Your task to perform on an android device: Search for logitech g933 on newegg, select the first entry, add it to the cart, then select checkout. Image 0: 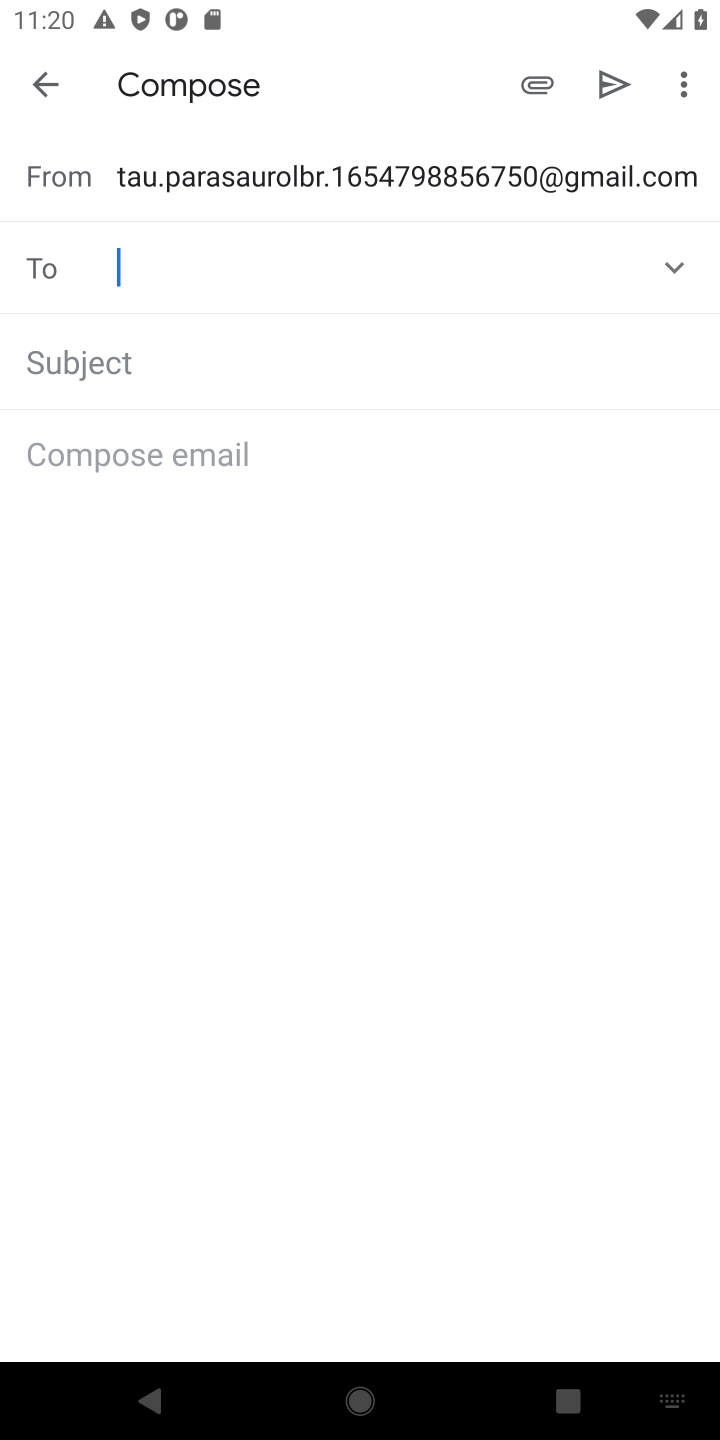
Step 0: press home button
Your task to perform on an android device: Search for logitech g933 on newegg, select the first entry, add it to the cart, then select checkout. Image 1: 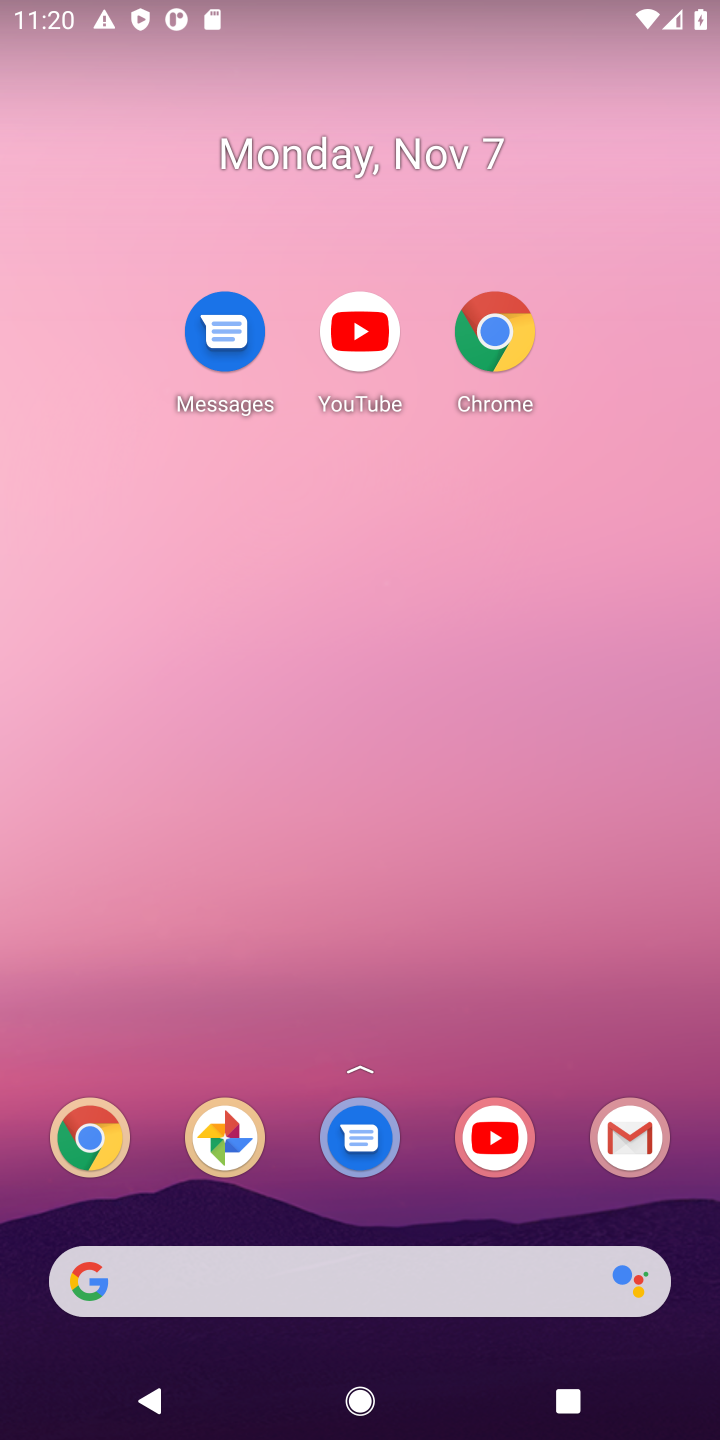
Step 1: drag from (438, 1225) to (401, 257)
Your task to perform on an android device: Search for logitech g933 on newegg, select the first entry, add it to the cart, then select checkout. Image 2: 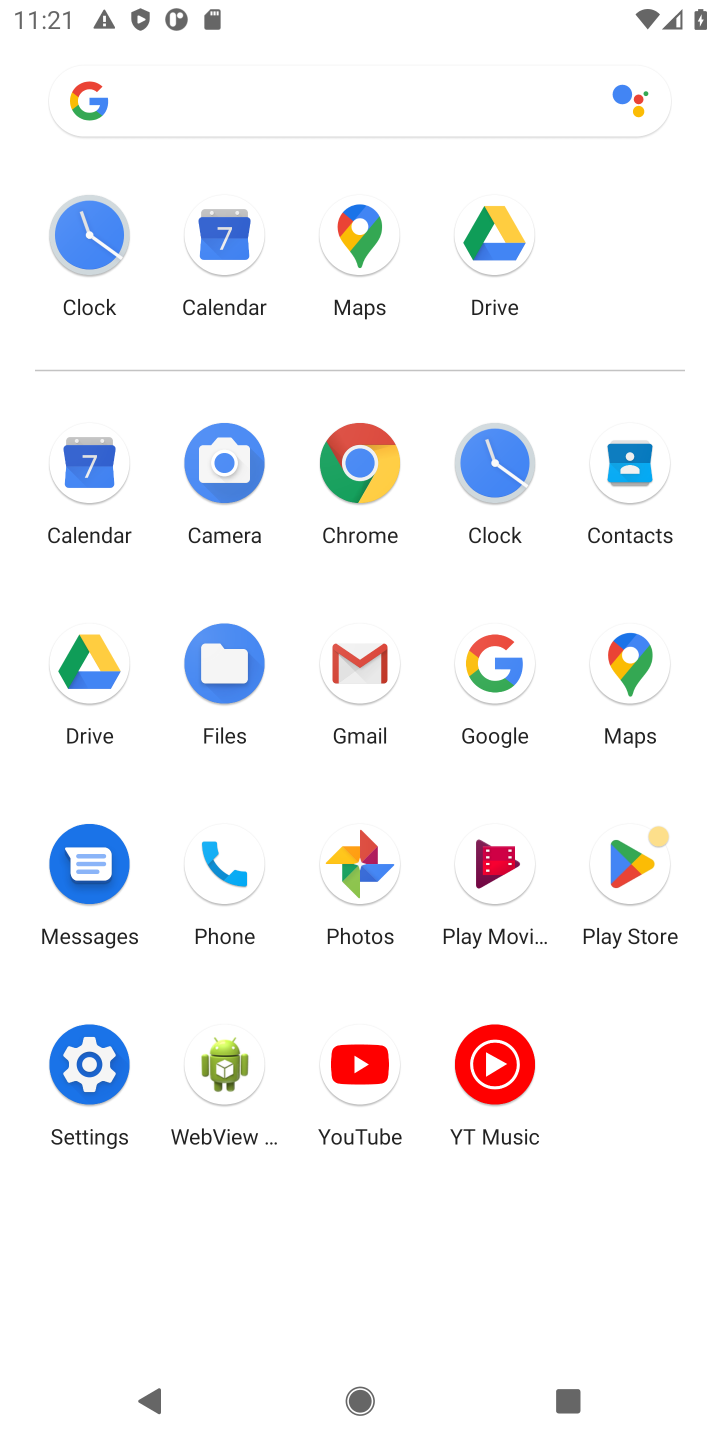
Step 2: click (355, 464)
Your task to perform on an android device: Search for logitech g933 on newegg, select the first entry, add it to the cart, then select checkout. Image 3: 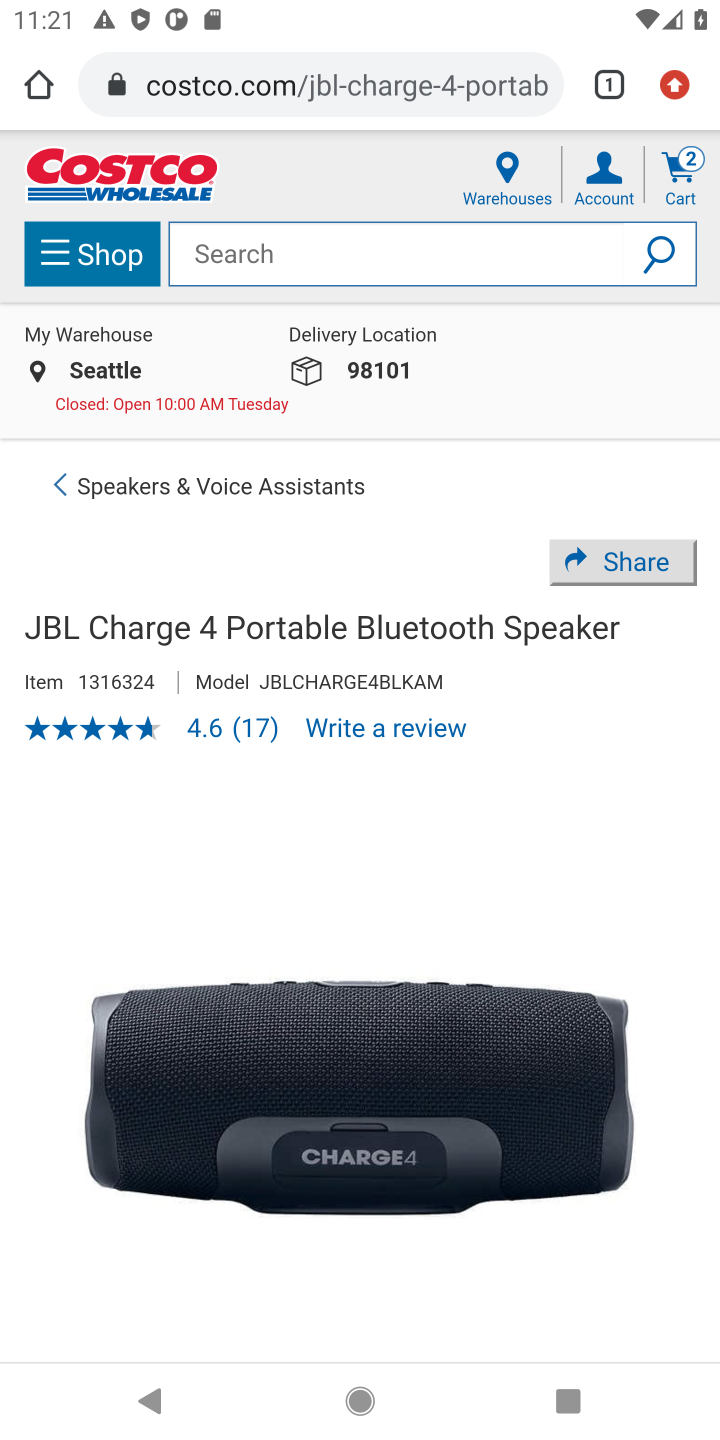
Step 3: click (459, 93)
Your task to perform on an android device: Search for logitech g933 on newegg, select the first entry, add it to the cart, then select checkout. Image 4: 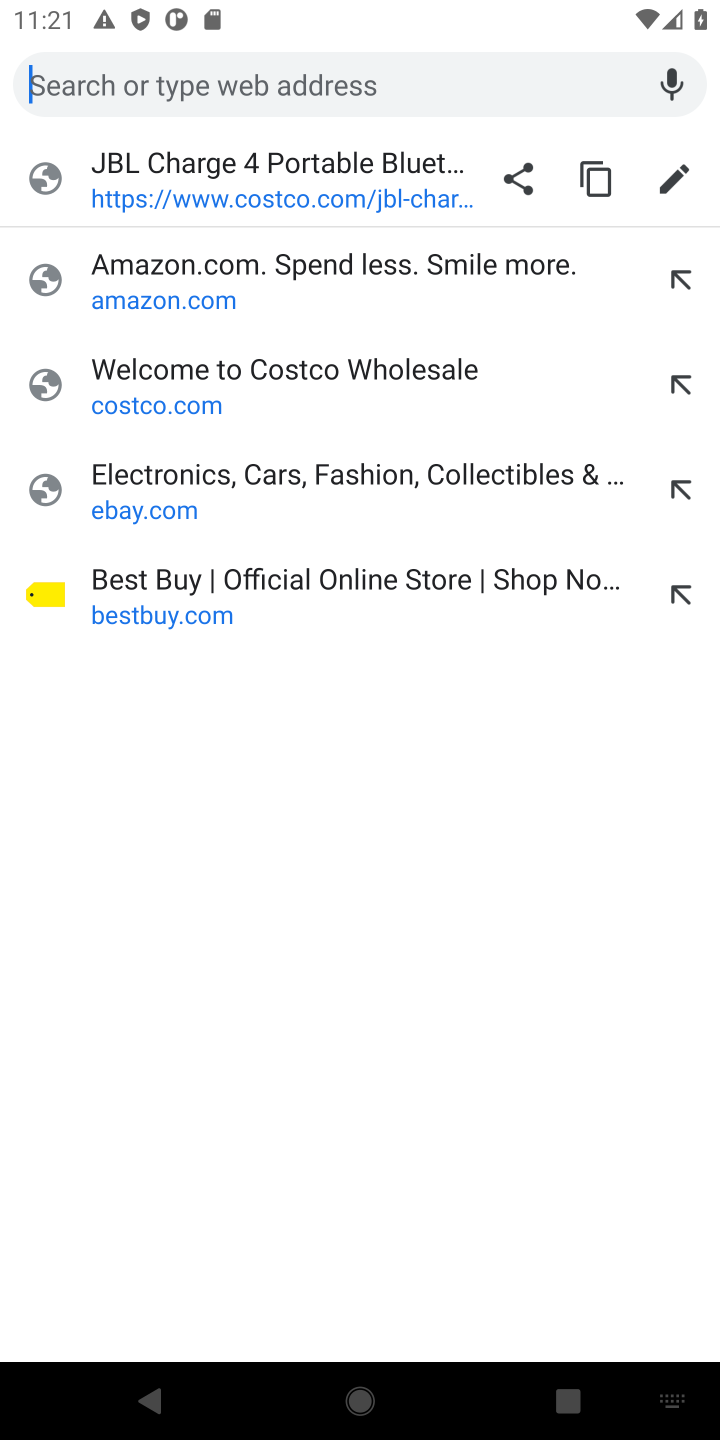
Step 4: type "newegg.com"
Your task to perform on an android device: Search for logitech g933 on newegg, select the first entry, add it to the cart, then select checkout. Image 5: 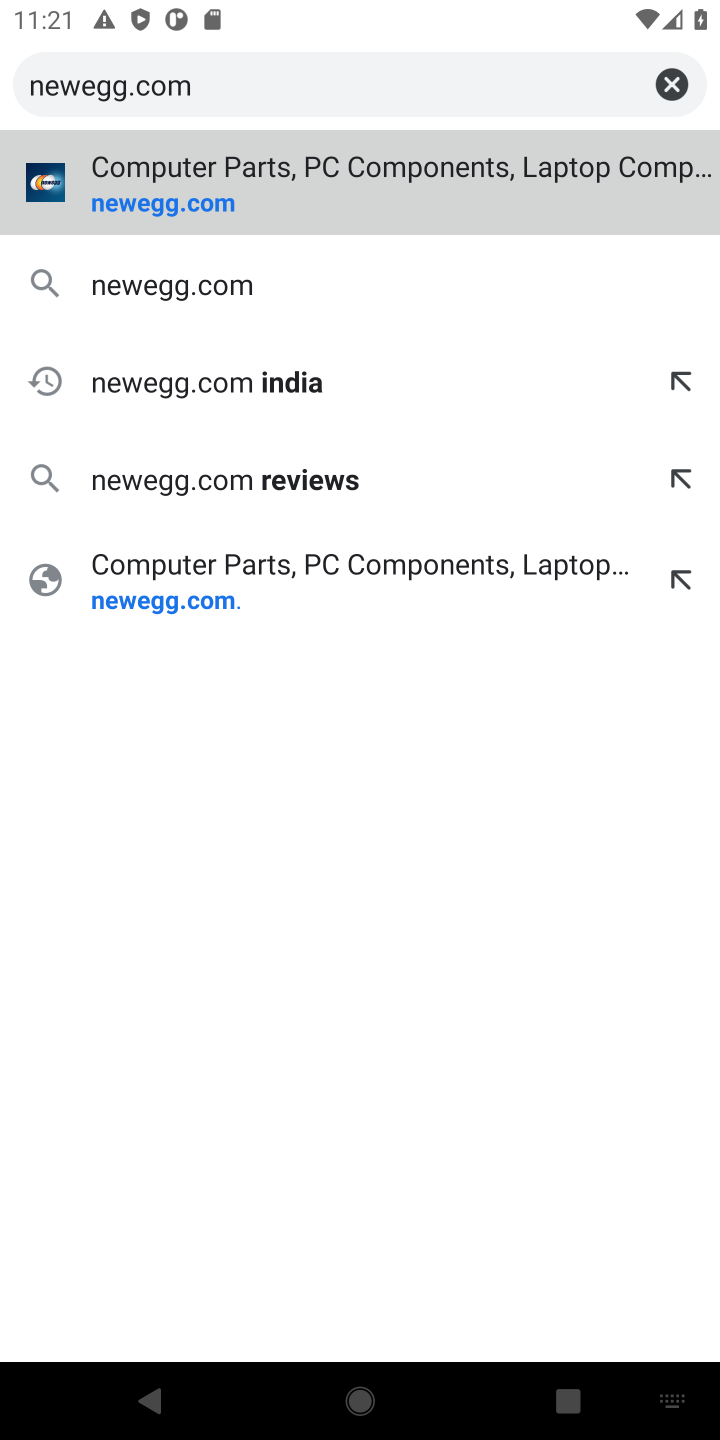
Step 5: press enter
Your task to perform on an android device: Search for logitech g933 on newegg, select the first entry, add it to the cart, then select checkout. Image 6: 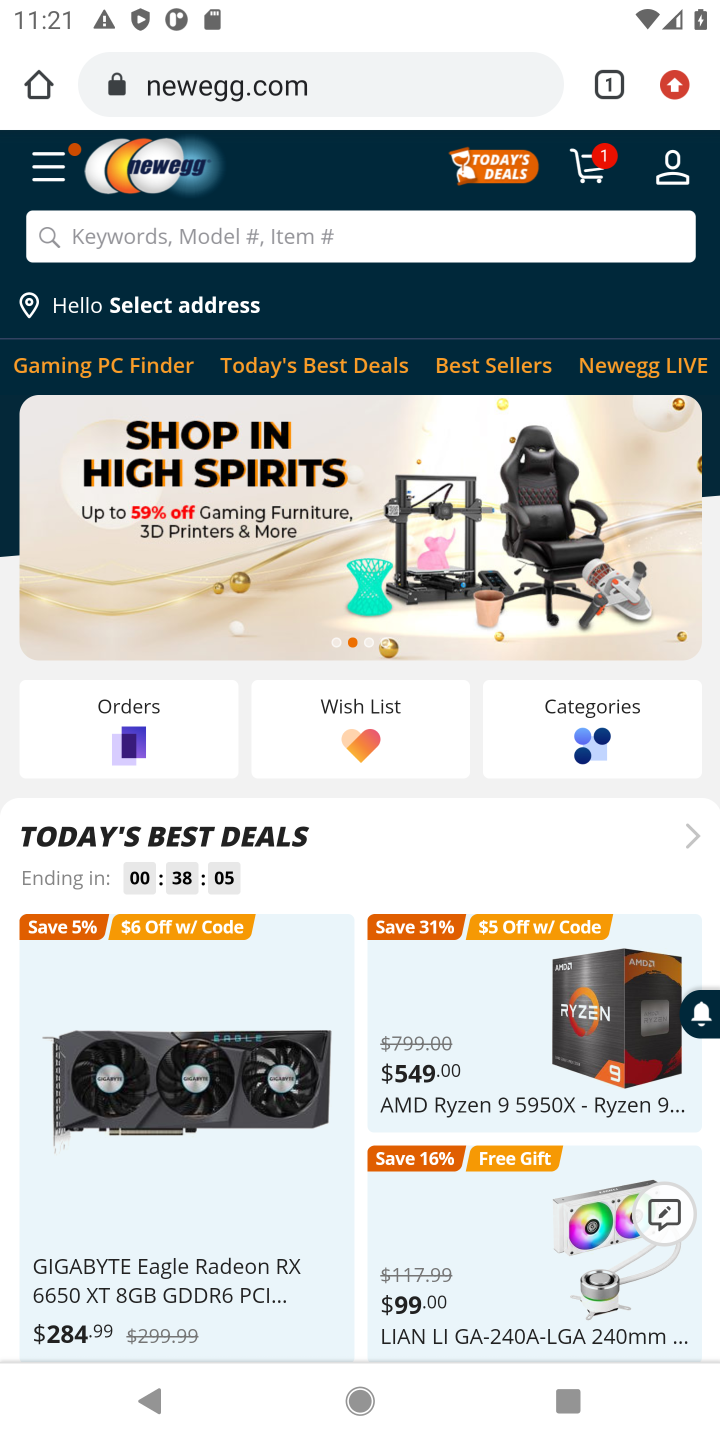
Step 6: click (445, 230)
Your task to perform on an android device: Search for logitech g933 on newegg, select the first entry, add it to the cart, then select checkout. Image 7: 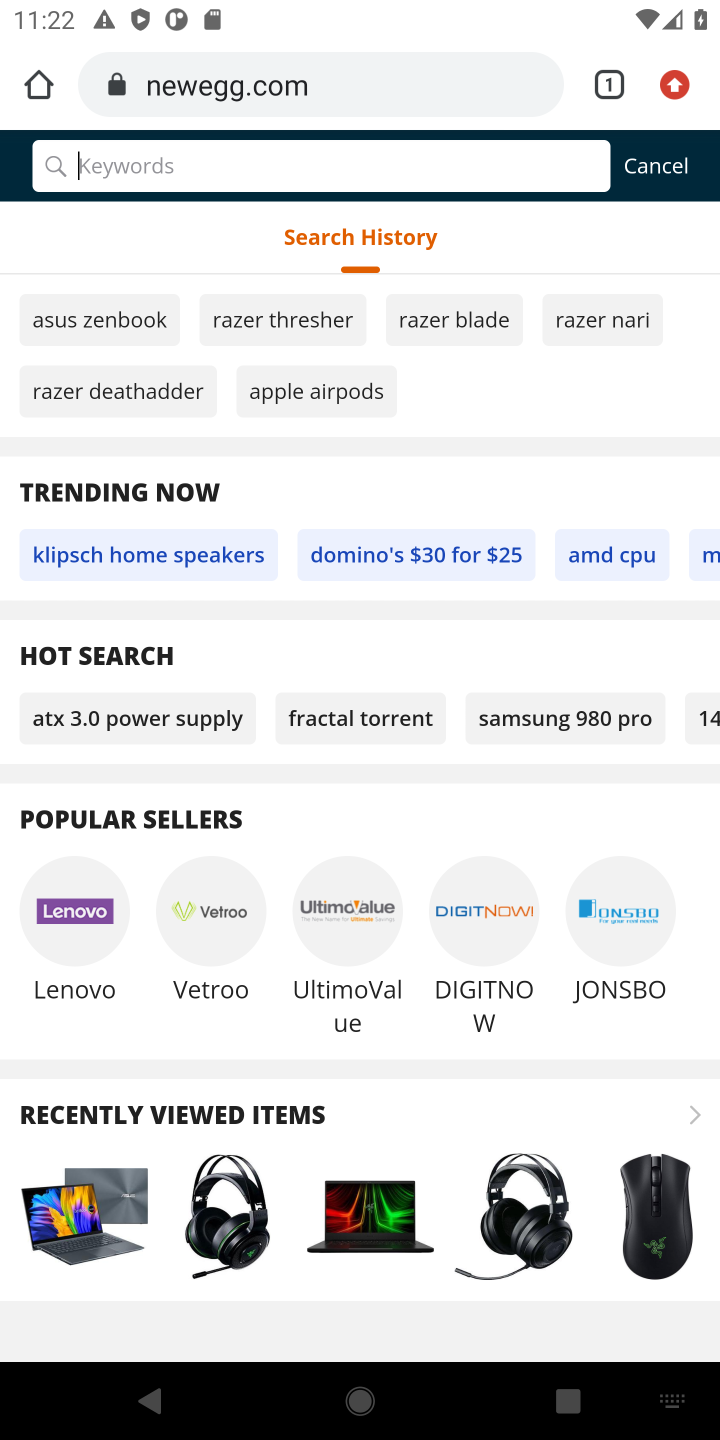
Step 7: type "logitech g933"
Your task to perform on an android device: Search for logitech g933 on newegg, select the first entry, add it to the cart, then select checkout. Image 8: 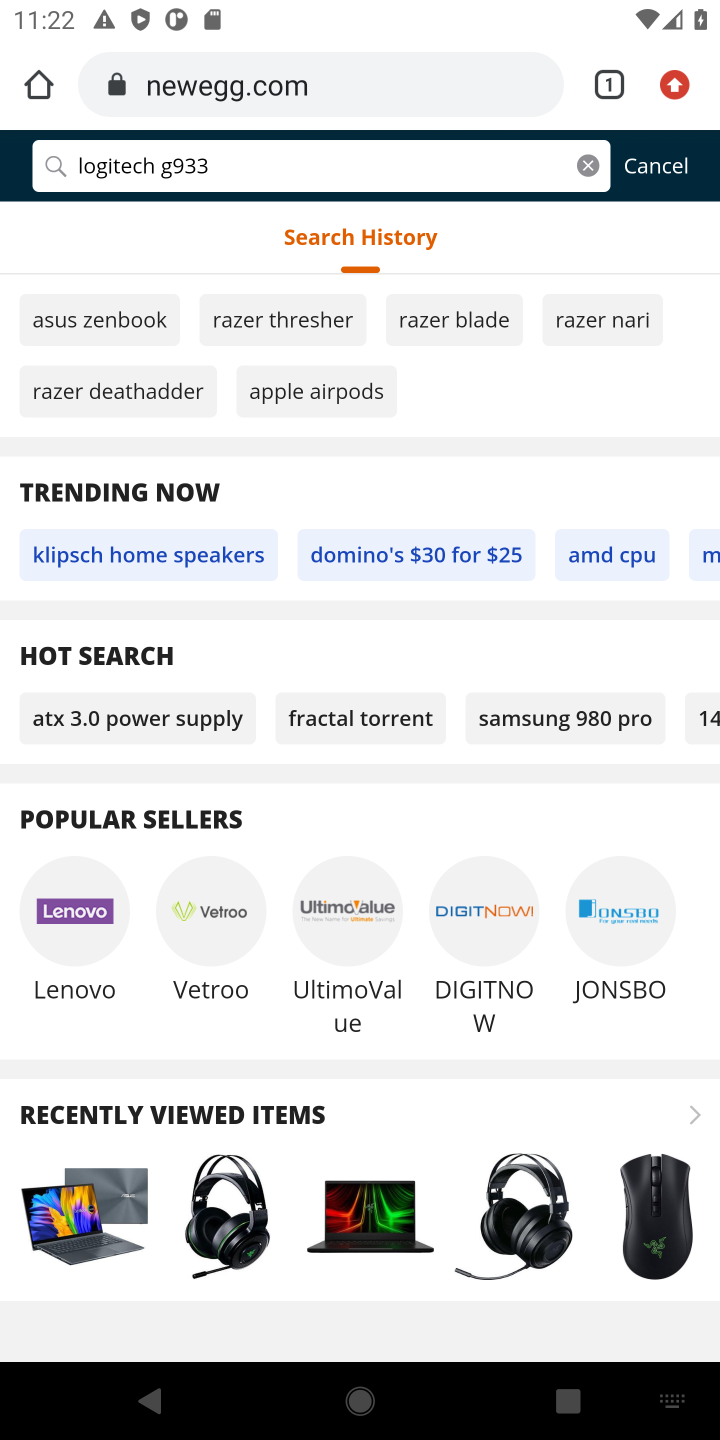
Step 8: press enter
Your task to perform on an android device: Search for logitech g933 on newegg, select the first entry, add it to the cart, then select checkout. Image 9: 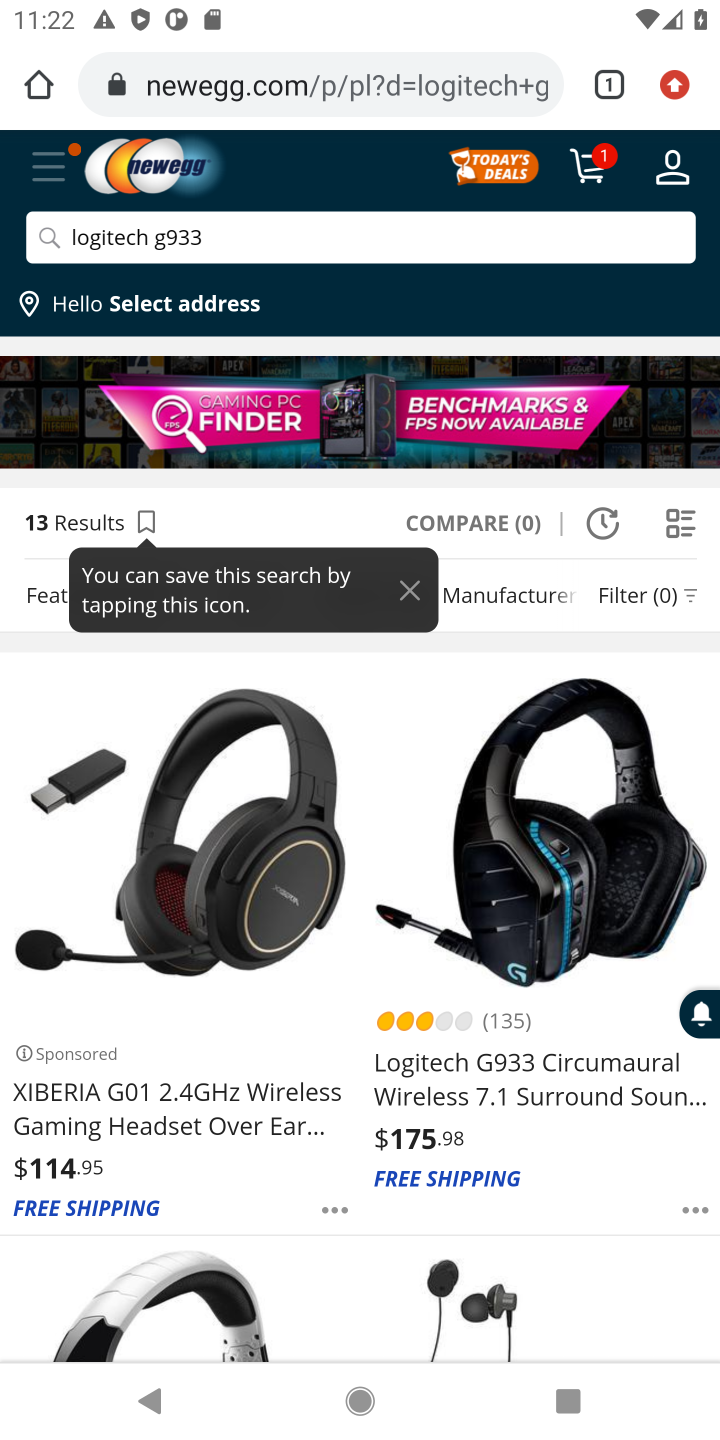
Step 9: press enter
Your task to perform on an android device: Search for logitech g933 on newegg, select the first entry, add it to the cart, then select checkout. Image 10: 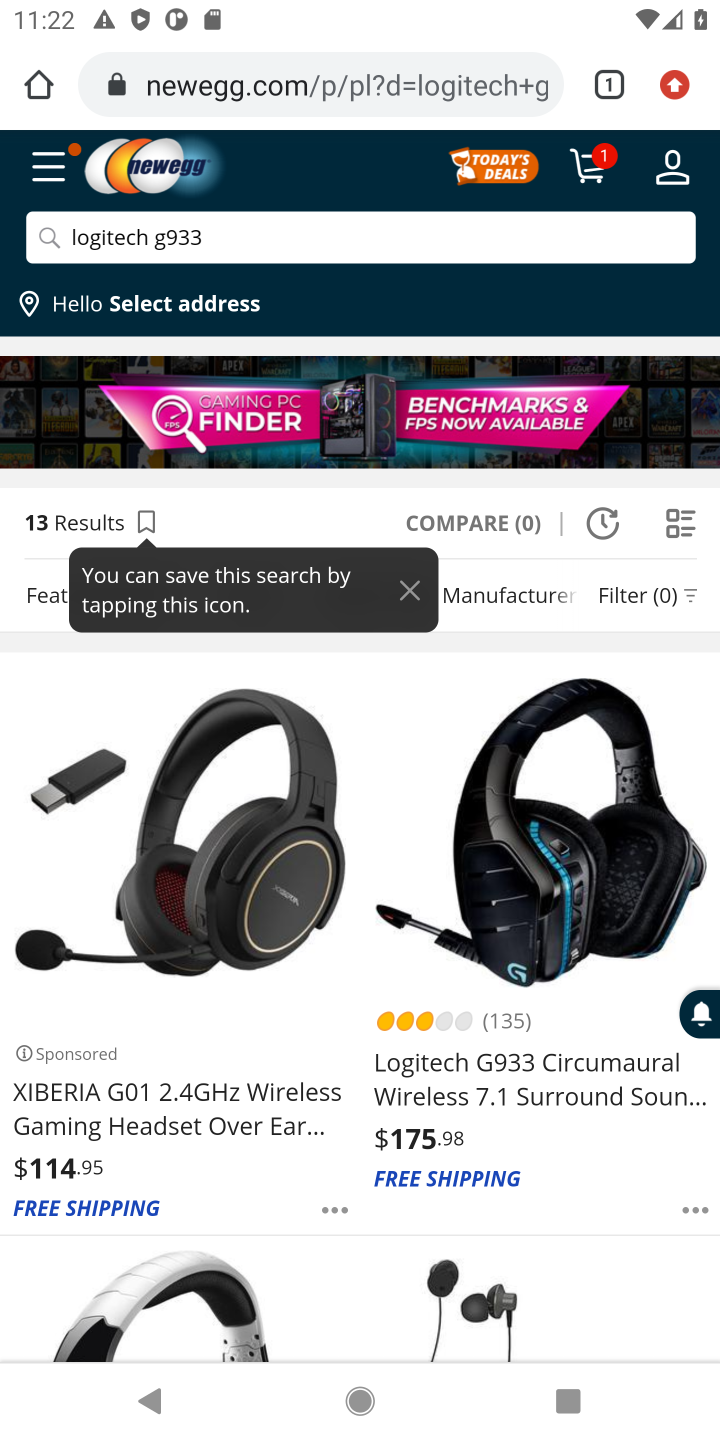
Step 10: click (609, 908)
Your task to perform on an android device: Search for logitech g933 on newegg, select the first entry, add it to the cart, then select checkout. Image 11: 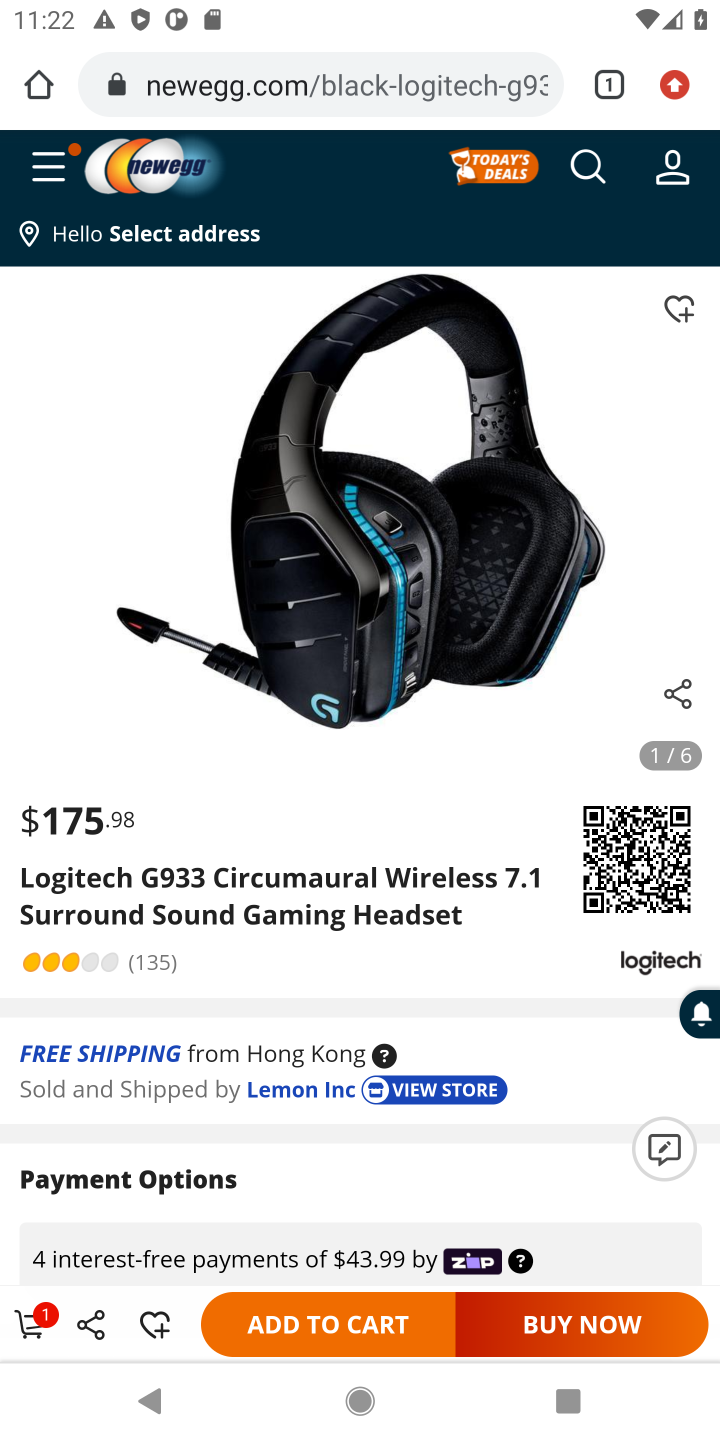
Step 11: click (304, 1308)
Your task to perform on an android device: Search for logitech g933 on newegg, select the first entry, add it to the cart, then select checkout. Image 12: 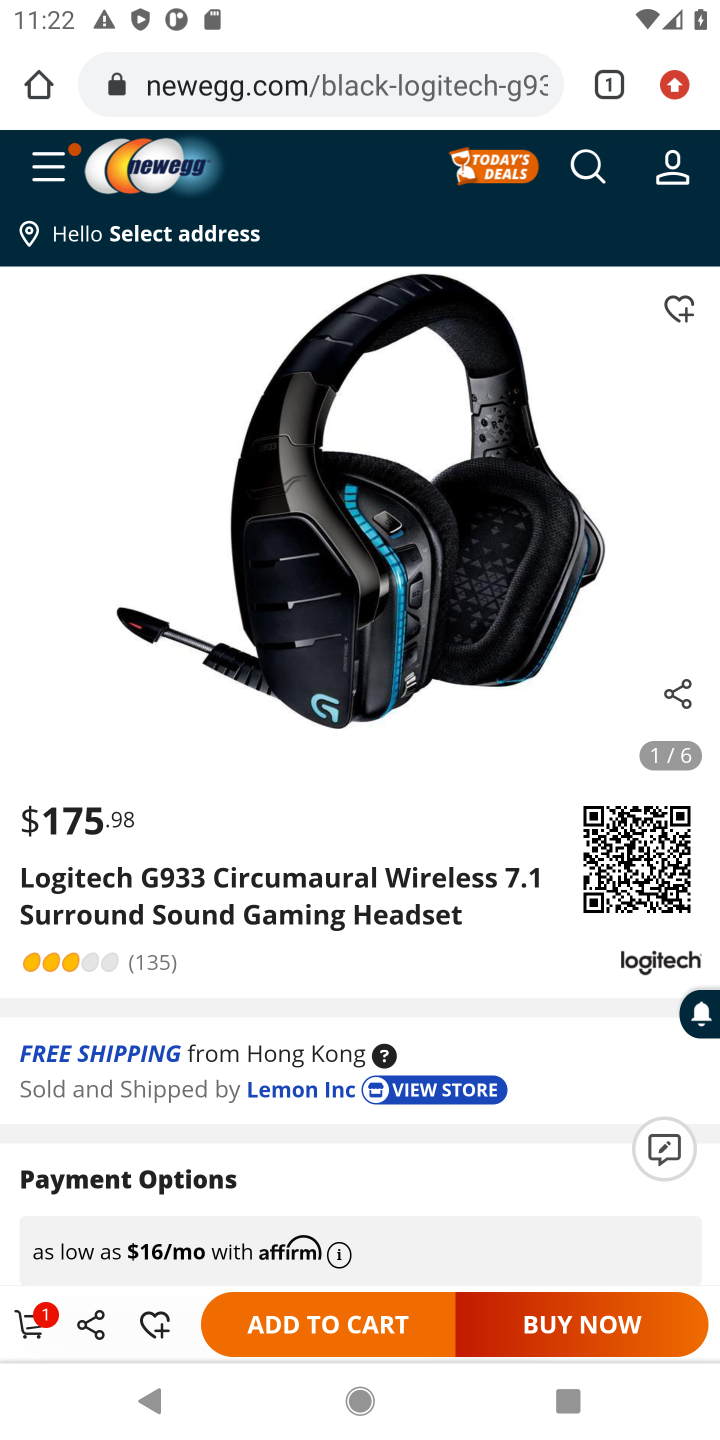
Step 12: click (298, 1346)
Your task to perform on an android device: Search for logitech g933 on newegg, select the first entry, add it to the cart, then select checkout. Image 13: 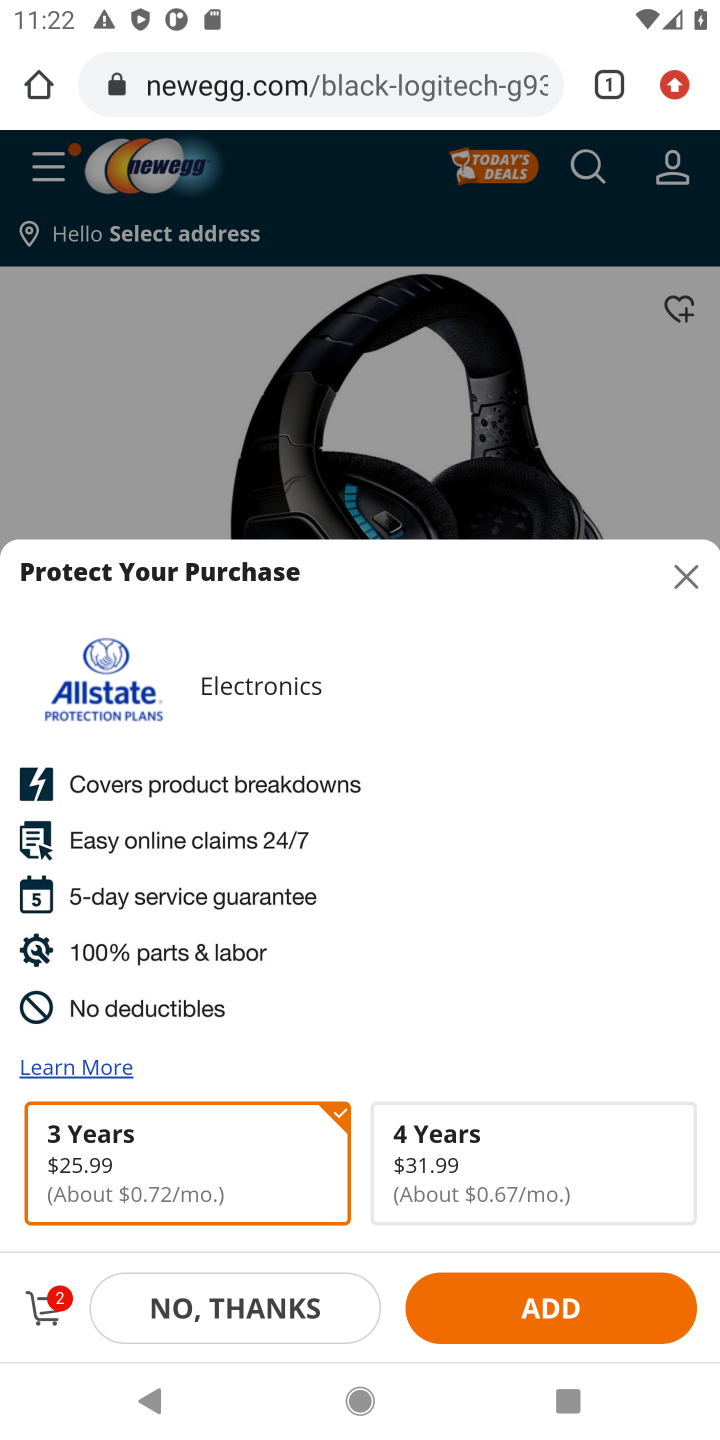
Step 13: click (61, 1300)
Your task to perform on an android device: Search for logitech g933 on newegg, select the first entry, add it to the cart, then select checkout. Image 14: 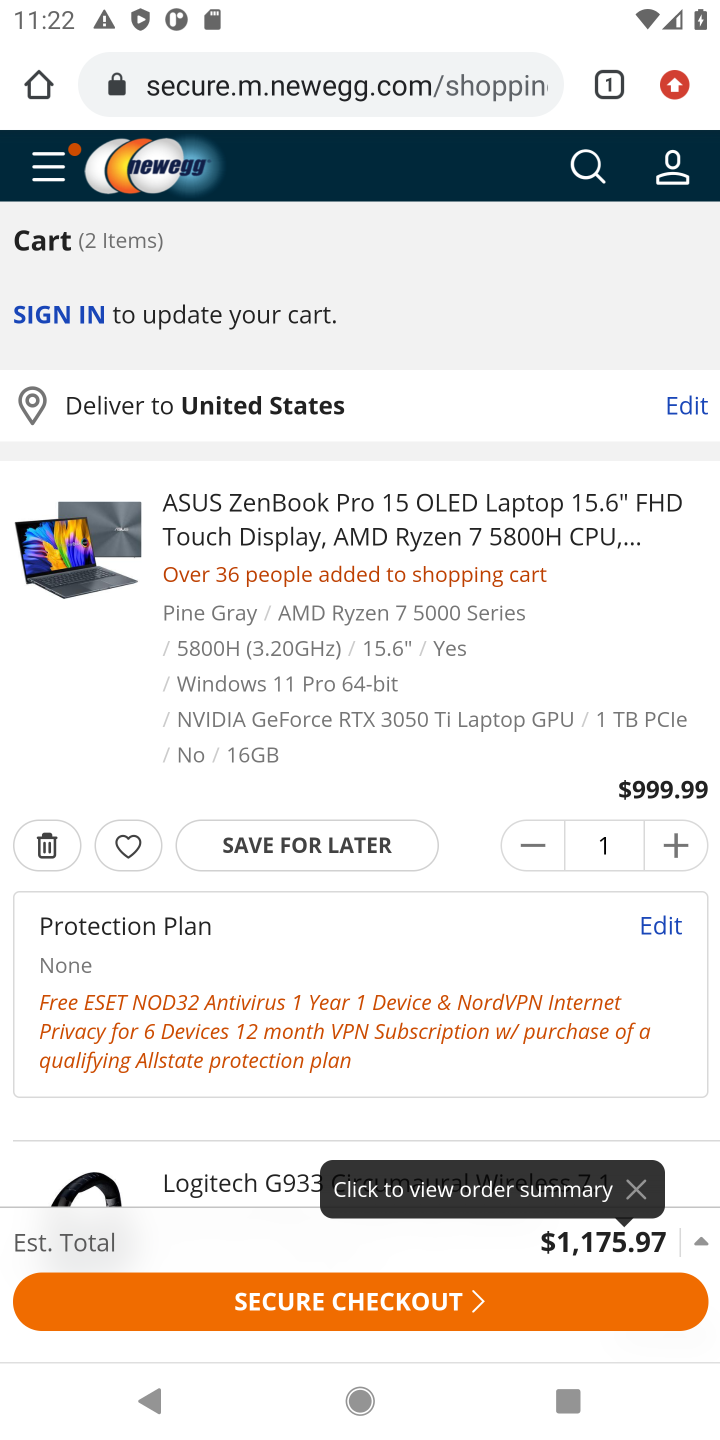
Step 14: click (322, 1292)
Your task to perform on an android device: Search for logitech g933 on newegg, select the first entry, add it to the cart, then select checkout. Image 15: 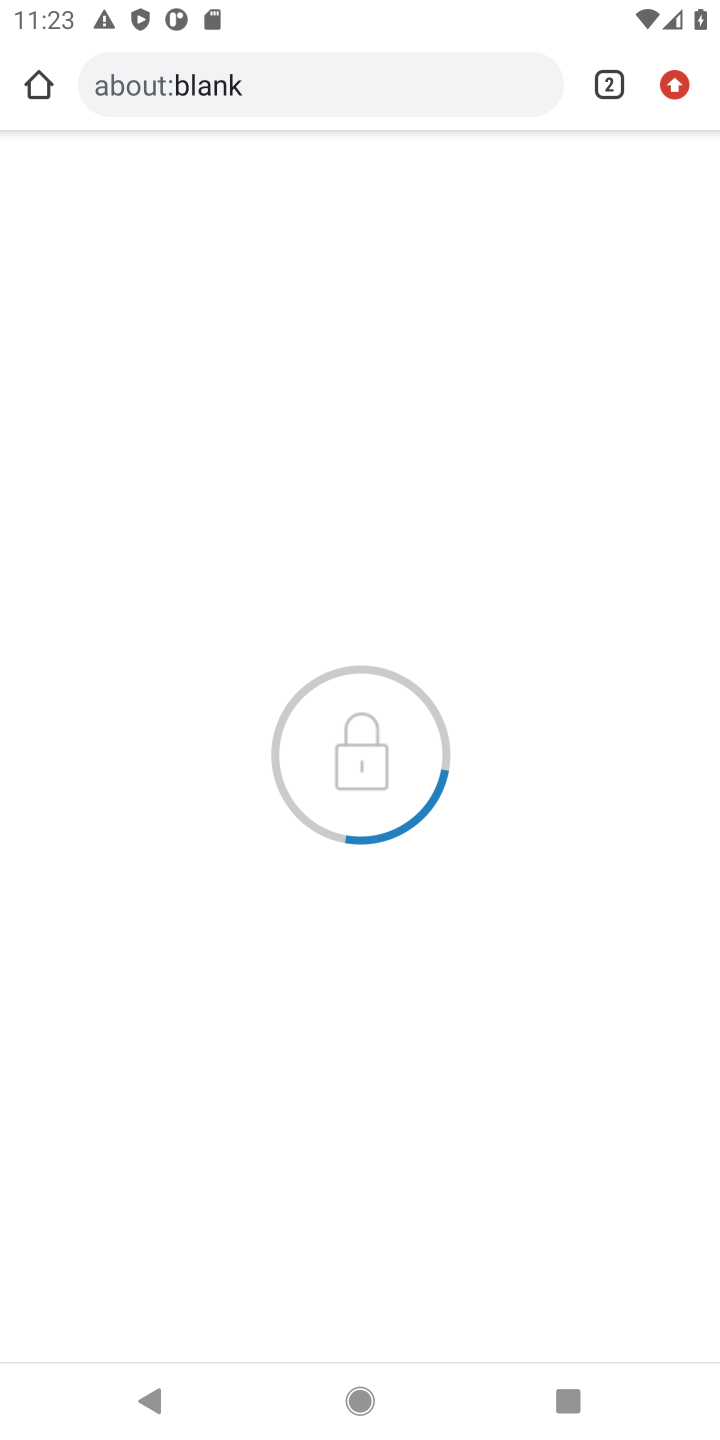
Step 15: press back button
Your task to perform on an android device: Search for logitech g933 on newegg, select the first entry, add it to the cart, then select checkout. Image 16: 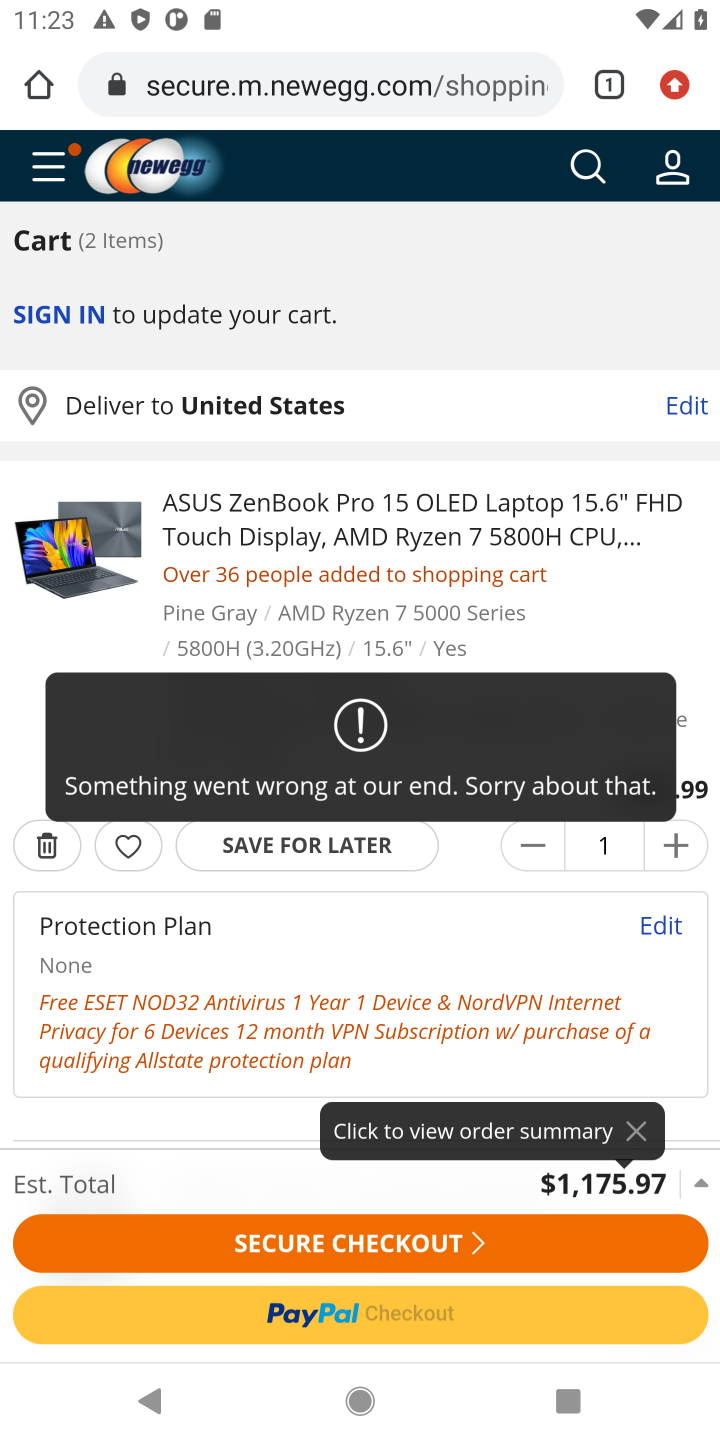
Step 16: click (363, 1239)
Your task to perform on an android device: Search for logitech g933 on newegg, select the first entry, add it to the cart, then select checkout. Image 17: 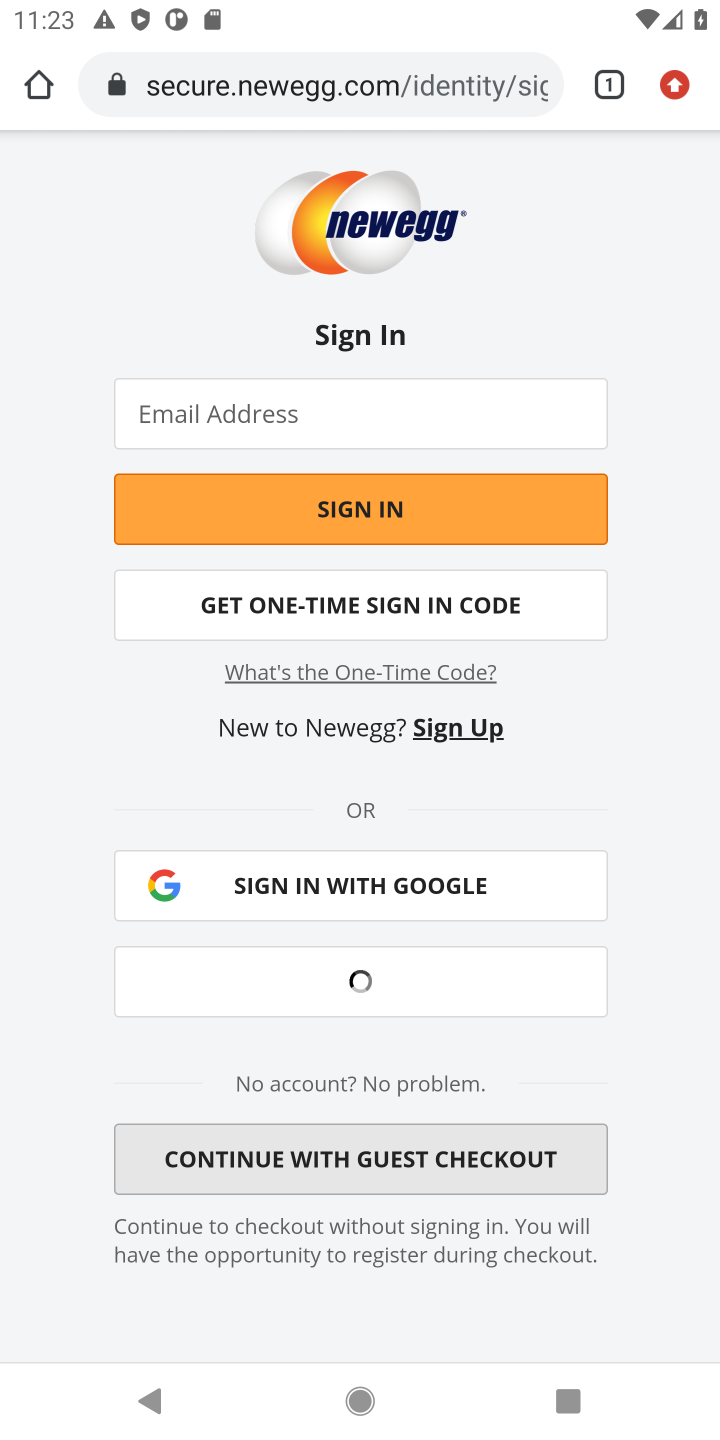
Step 17: task complete